Your task to perform on an android device: add a contact Image 0: 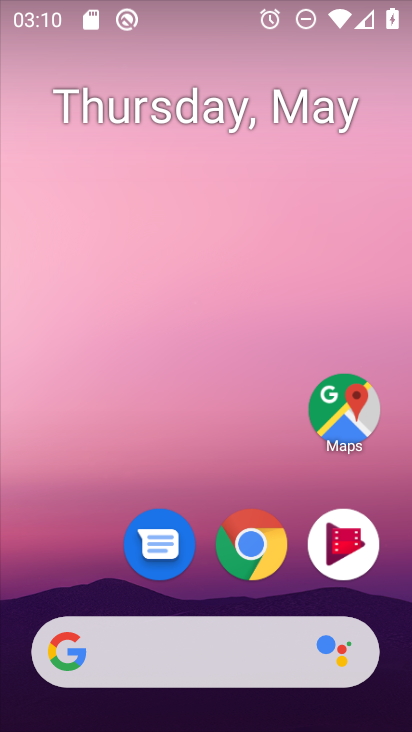
Step 0: drag from (60, 559) to (46, 146)
Your task to perform on an android device: add a contact Image 1: 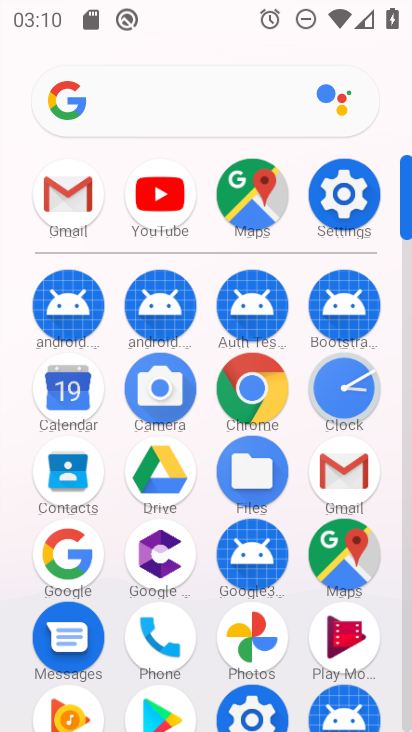
Step 1: click (67, 479)
Your task to perform on an android device: add a contact Image 2: 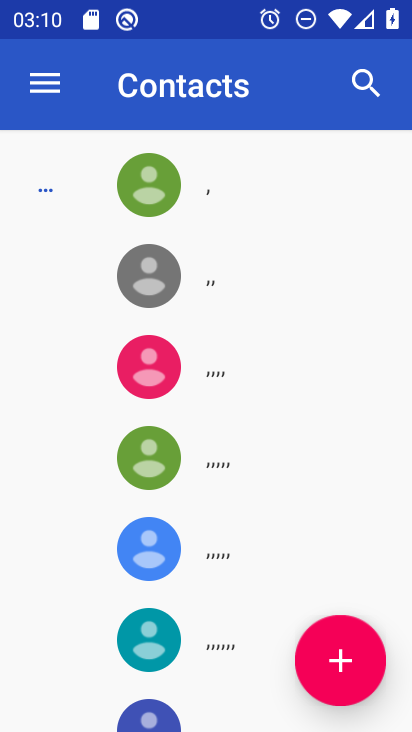
Step 2: click (337, 680)
Your task to perform on an android device: add a contact Image 3: 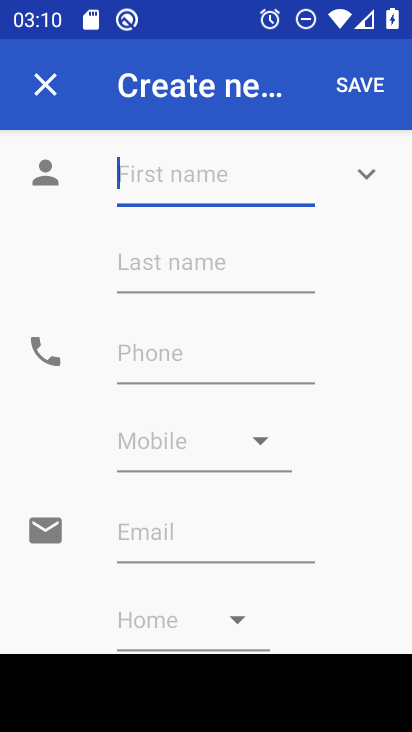
Step 3: type "lolll"
Your task to perform on an android device: add a contact Image 4: 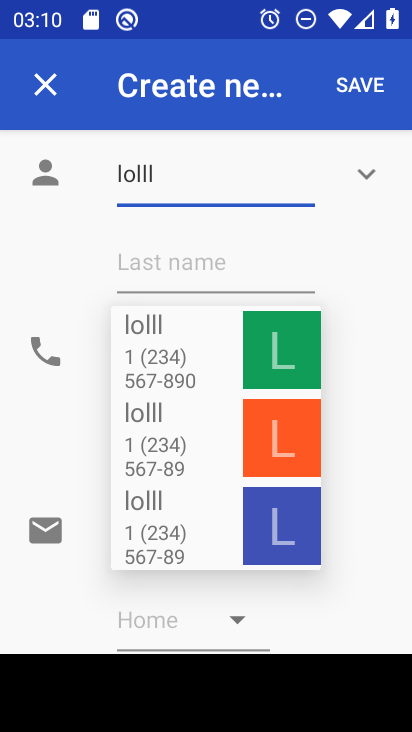
Step 4: click (371, 332)
Your task to perform on an android device: add a contact Image 5: 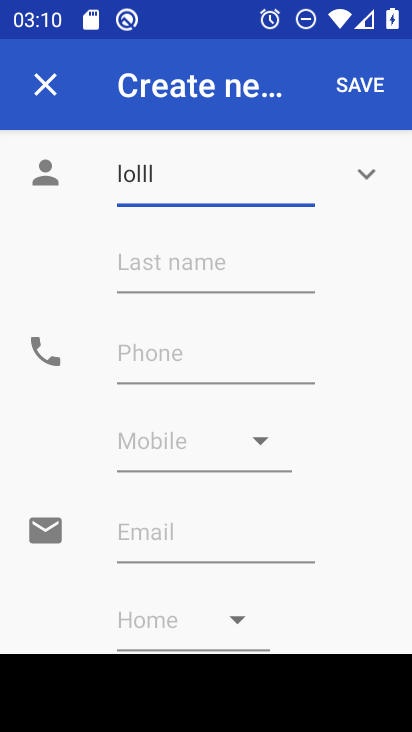
Step 5: click (240, 360)
Your task to perform on an android device: add a contact Image 6: 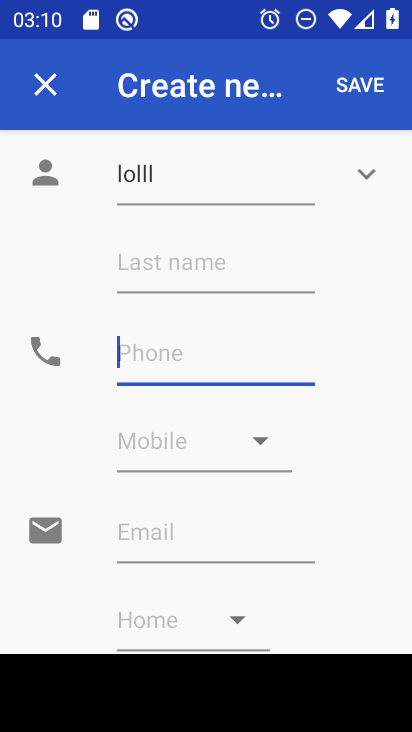
Step 6: type "12345"
Your task to perform on an android device: add a contact Image 7: 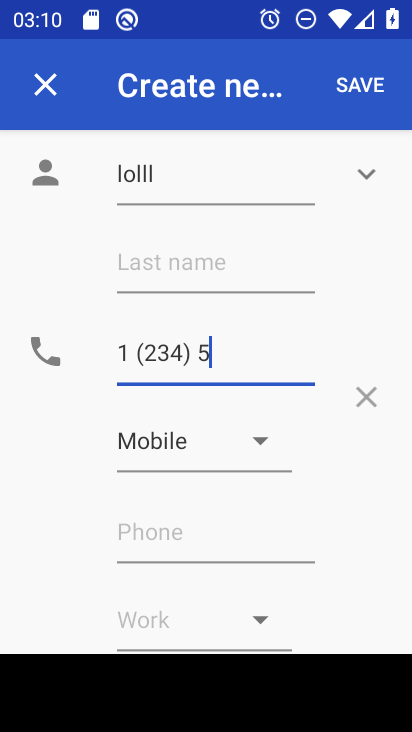
Step 7: click (396, 113)
Your task to perform on an android device: add a contact Image 8: 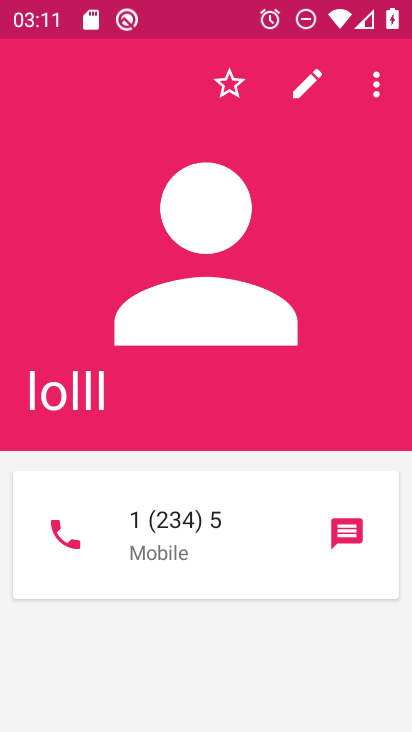
Step 8: task complete